Your task to perform on an android device: turn off picture-in-picture Image 0: 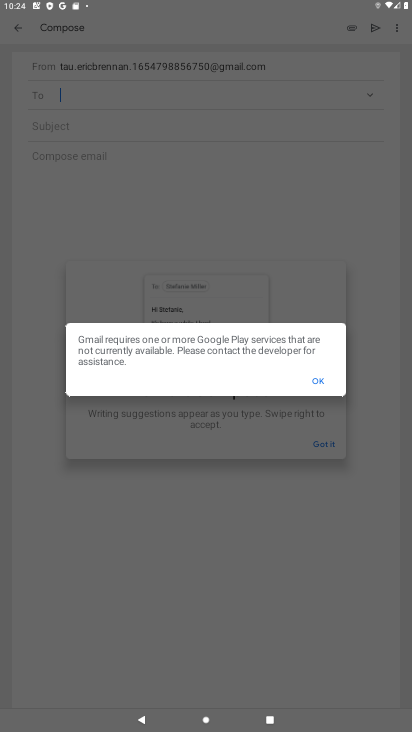
Step 0: press home button
Your task to perform on an android device: turn off picture-in-picture Image 1: 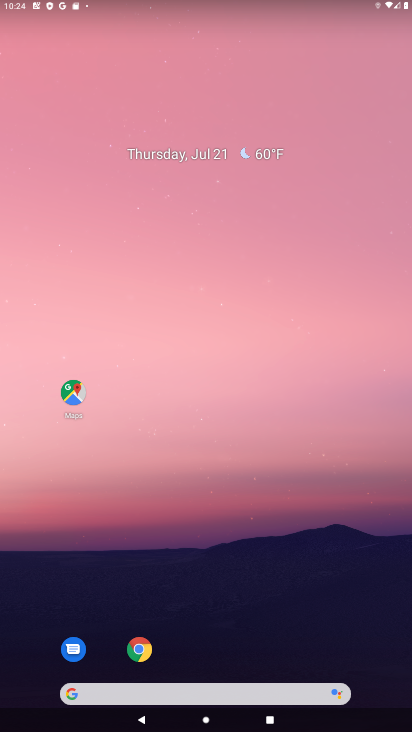
Step 1: click (142, 650)
Your task to perform on an android device: turn off picture-in-picture Image 2: 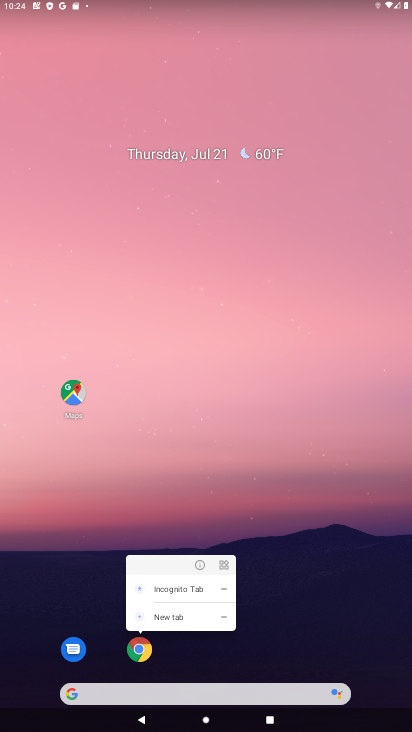
Step 2: click (198, 566)
Your task to perform on an android device: turn off picture-in-picture Image 3: 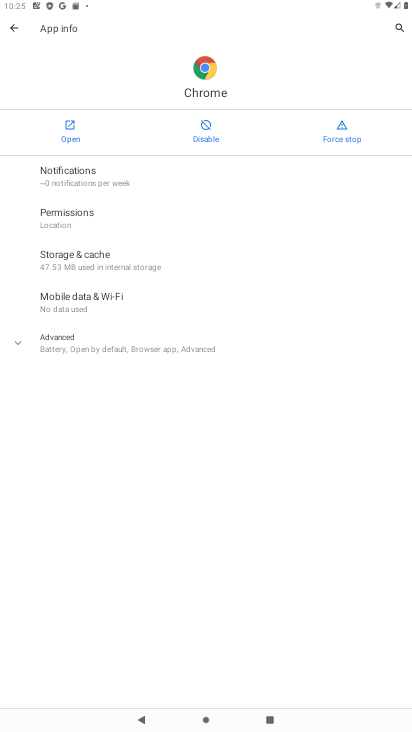
Step 3: click (71, 342)
Your task to perform on an android device: turn off picture-in-picture Image 4: 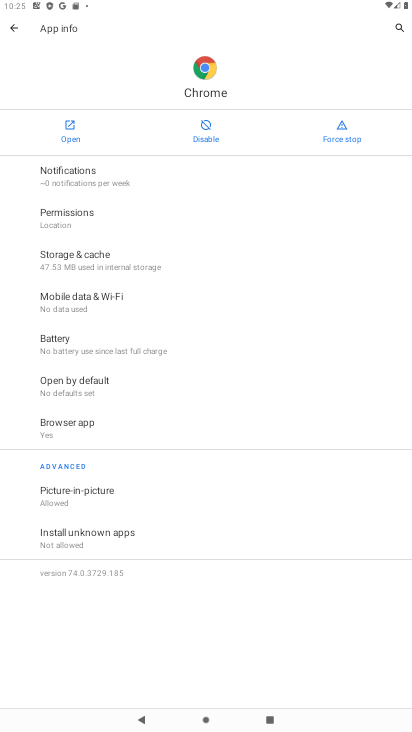
Step 4: click (79, 488)
Your task to perform on an android device: turn off picture-in-picture Image 5: 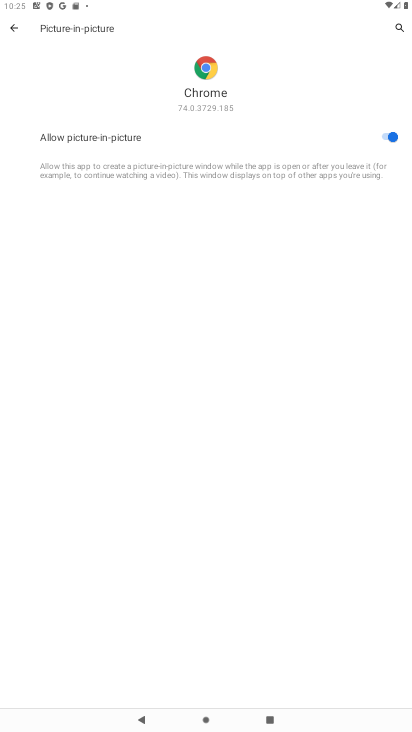
Step 5: click (386, 136)
Your task to perform on an android device: turn off picture-in-picture Image 6: 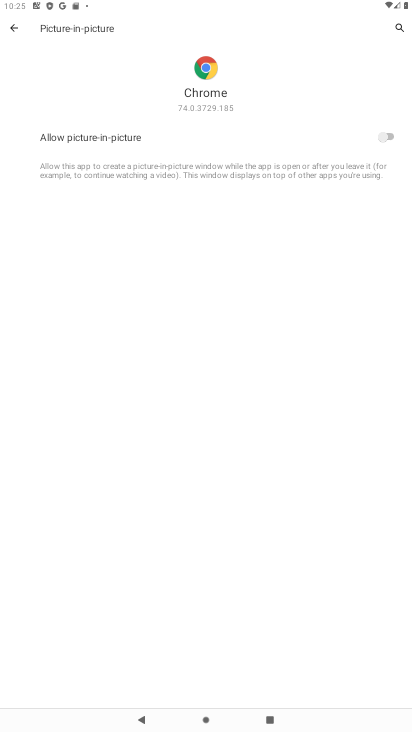
Step 6: task complete